Your task to perform on an android device: Show me the alarms in the clock app Image 0: 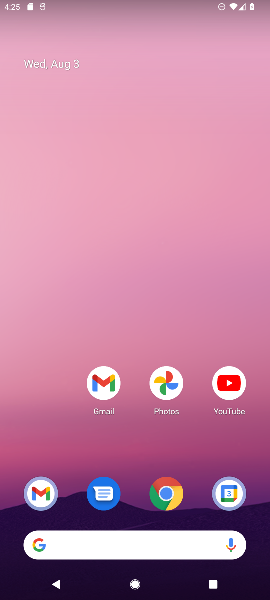
Step 0: drag from (50, 442) to (58, 133)
Your task to perform on an android device: Show me the alarms in the clock app Image 1: 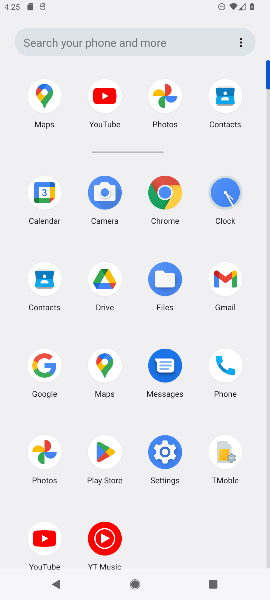
Step 1: click (225, 197)
Your task to perform on an android device: Show me the alarms in the clock app Image 2: 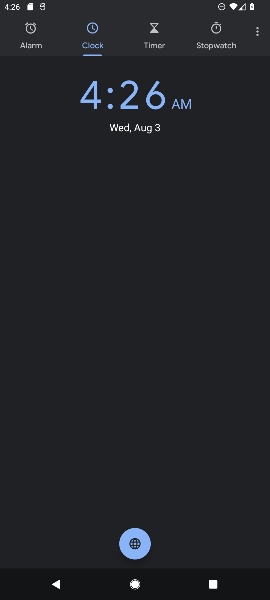
Step 2: click (35, 32)
Your task to perform on an android device: Show me the alarms in the clock app Image 3: 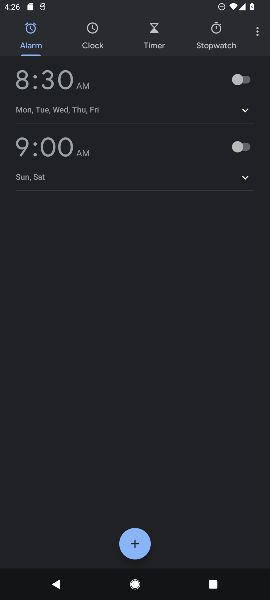
Step 3: task complete